Your task to perform on an android device: toggle javascript in the chrome app Image 0: 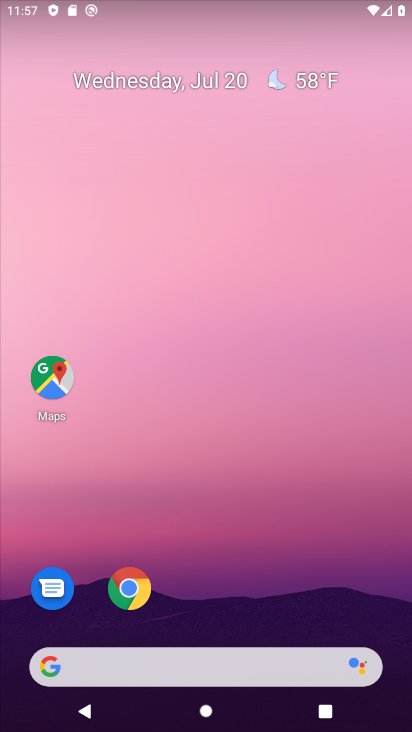
Step 0: click (127, 579)
Your task to perform on an android device: toggle javascript in the chrome app Image 1: 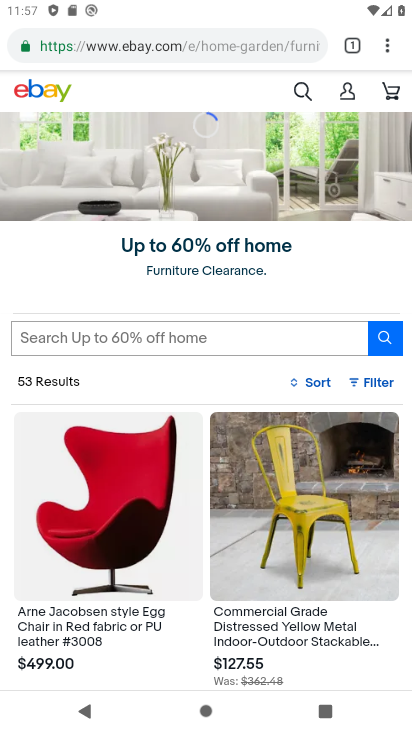
Step 1: click (381, 45)
Your task to perform on an android device: toggle javascript in the chrome app Image 2: 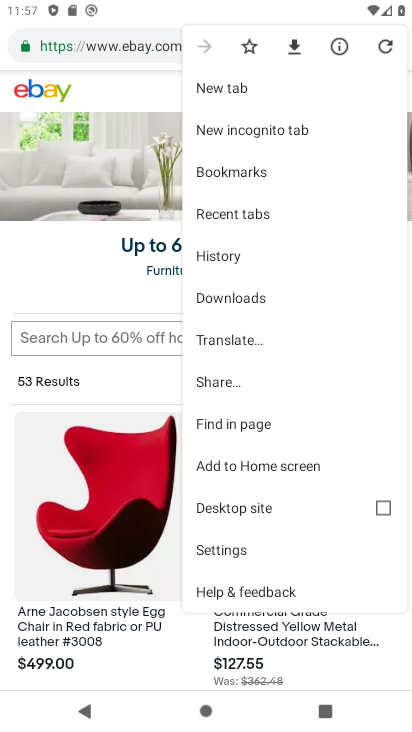
Step 2: click (226, 563)
Your task to perform on an android device: toggle javascript in the chrome app Image 3: 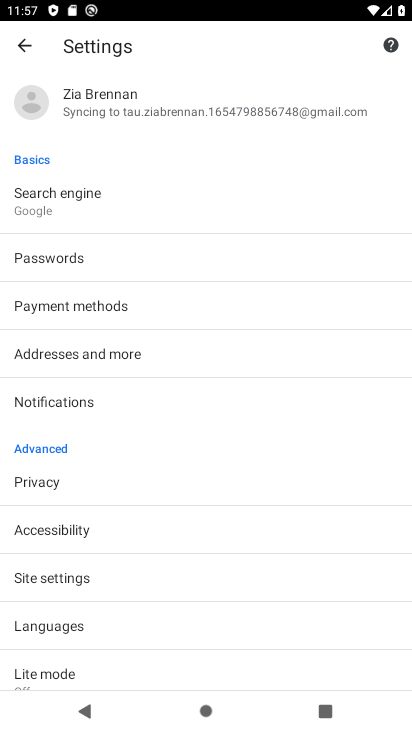
Step 3: click (146, 570)
Your task to perform on an android device: toggle javascript in the chrome app Image 4: 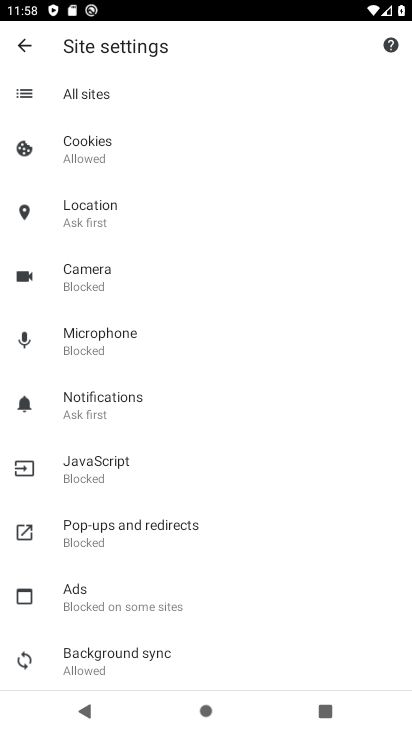
Step 4: click (139, 460)
Your task to perform on an android device: toggle javascript in the chrome app Image 5: 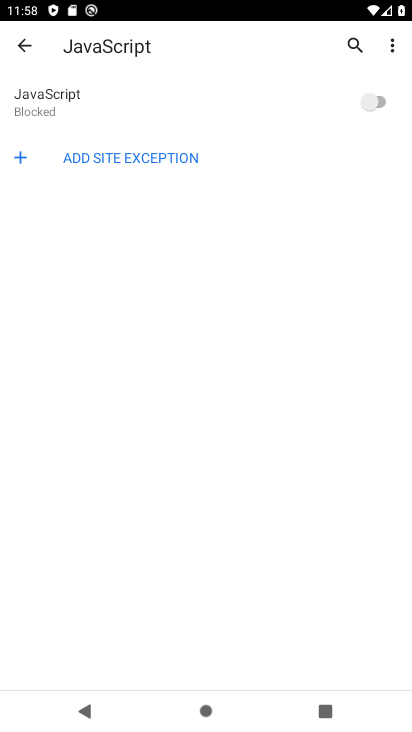
Step 5: click (368, 109)
Your task to perform on an android device: toggle javascript in the chrome app Image 6: 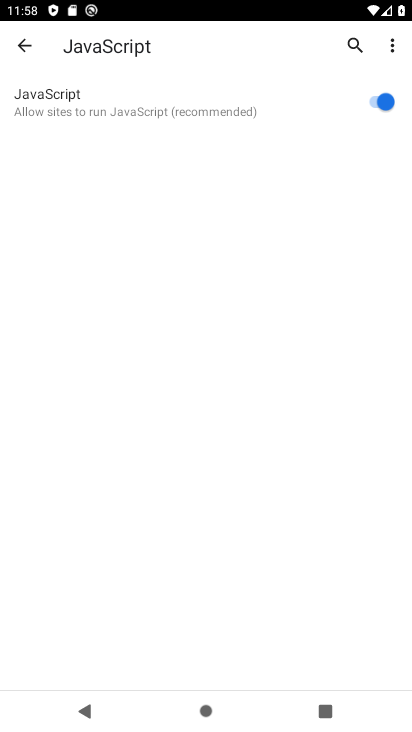
Step 6: task complete